Your task to perform on an android device: turn on bluetooth scan Image 0: 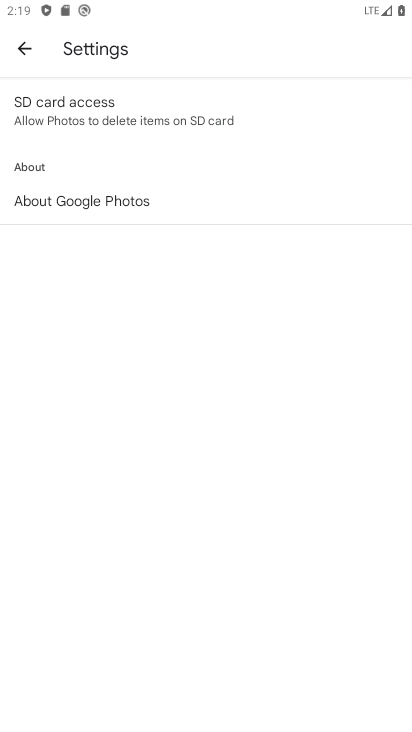
Step 0: press home button
Your task to perform on an android device: turn on bluetooth scan Image 1: 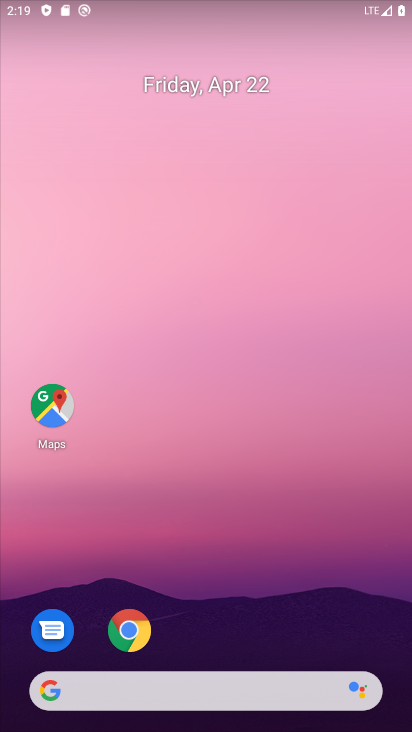
Step 1: drag from (383, 584) to (312, 156)
Your task to perform on an android device: turn on bluetooth scan Image 2: 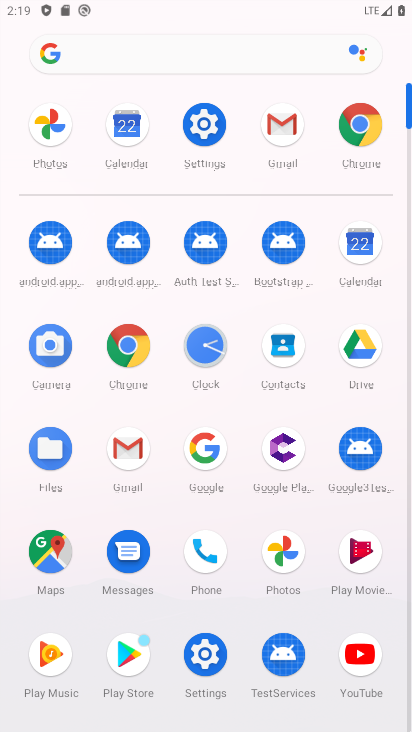
Step 2: click (211, 127)
Your task to perform on an android device: turn on bluetooth scan Image 3: 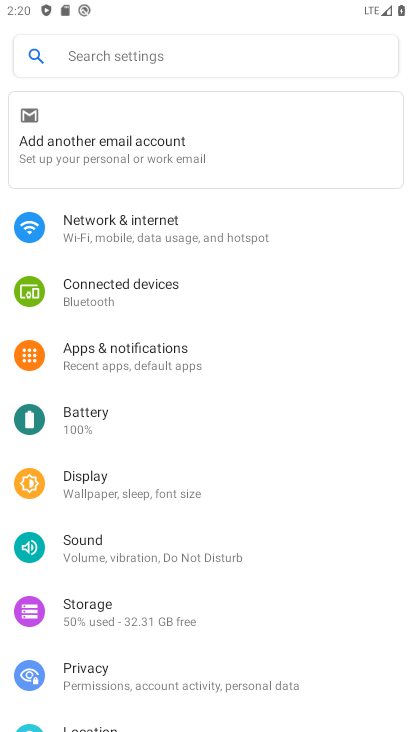
Step 3: drag from (267, 604) to (282, 294)
Your task to perform on an android device: turn on bluetooth scan Image 4: 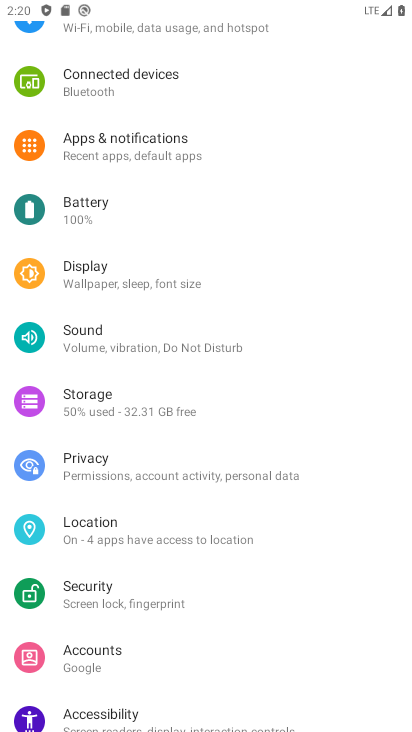
Step 4: click (167, 535)
Your task to perform on an android device: turn on bluetooth scan Image 5: 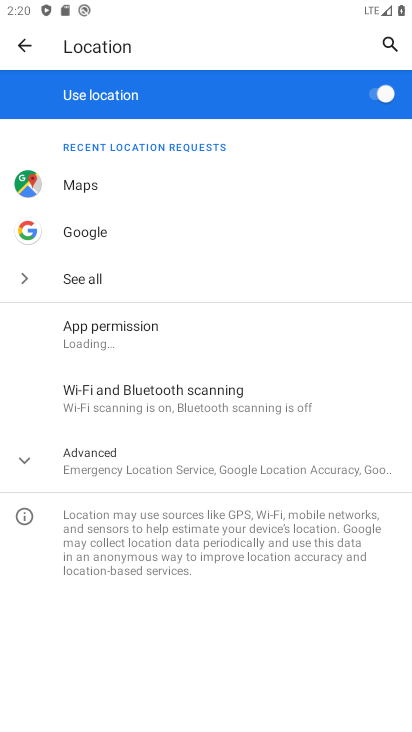
Step 5: click (213, 473)
Your task to perform on an android device: turn on bluetooth scan Image 6: 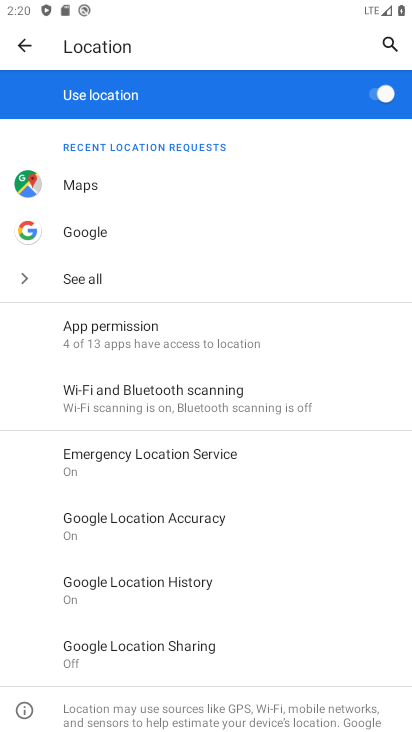
Step 6: drag from (263, 632) to (306, 427)
Your task to perform on an android device: turn on bluetooth scan Image 7: 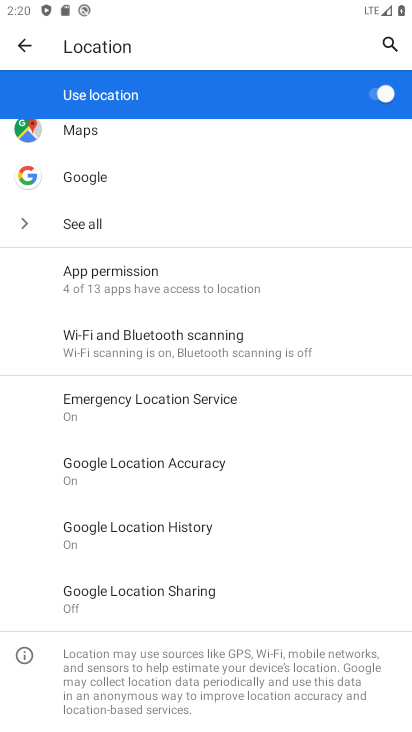
Step 7: click (264, 341)
Your task to perform on an android device: turn on bluetooth scan Image 8: 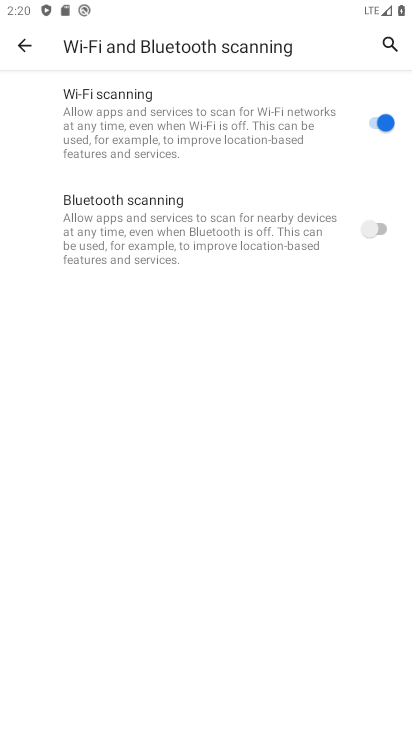
Step 8: click (385, 228)
Your task to perform on an android device: turn on bluetooth scan Image 9: 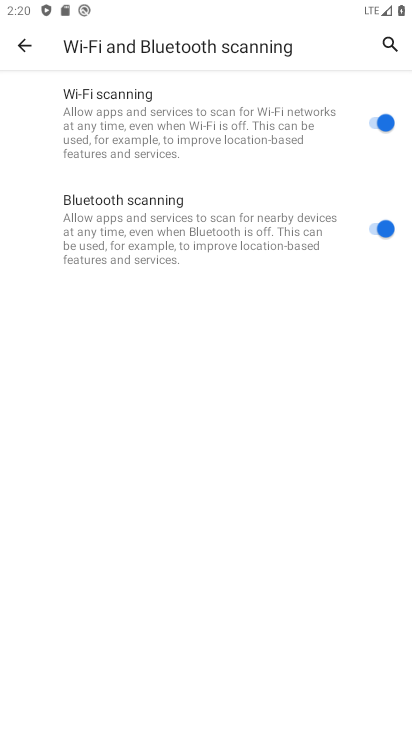
Step 9: task complete